Your task to perform on an android device: Open the web browser Image 0: 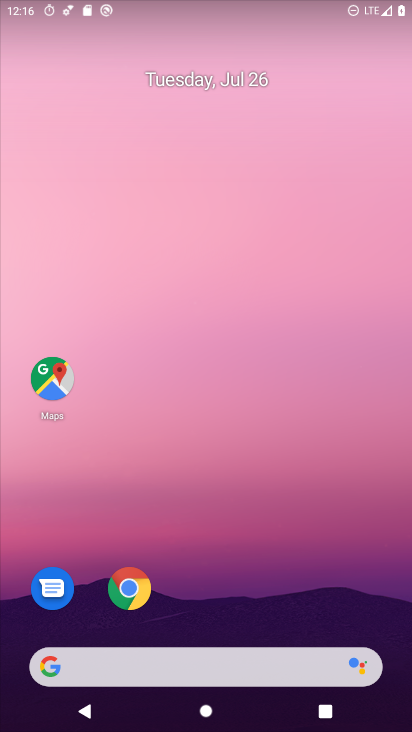
Step 0: task impossible